Your task to perform on an android device: Go to Yahoo.com Image 0: 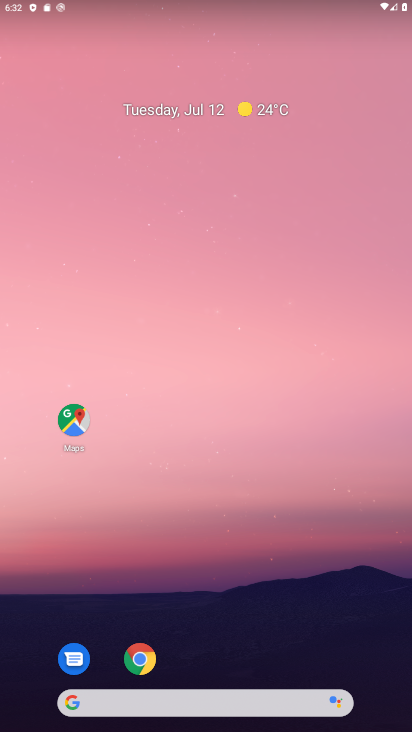
Step 0: drag from (211, 604) to (149, 0)
Your task to perform on an android device: Go to Yahoo.com Image 1: 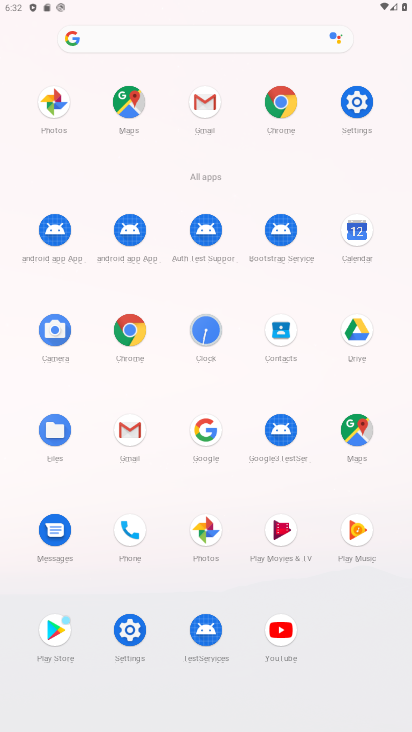
Step 1: click (201, 422)
Your task to perform on an android device: Go to Yahoo.com Image 2: 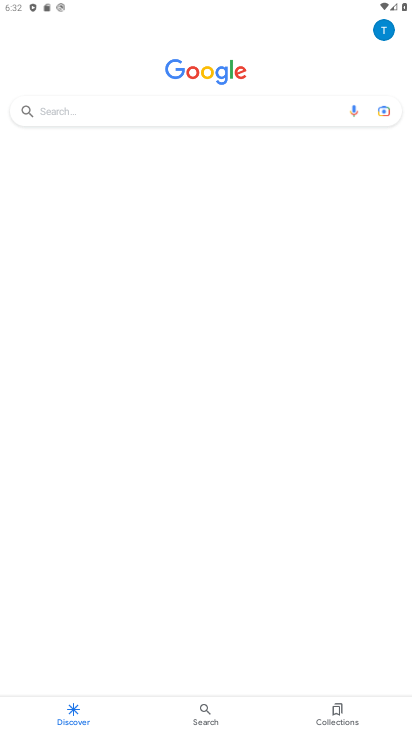
Step 2: click (125, 117)
Your task to perform on an android device: Go to Yahoo.com Image 3: 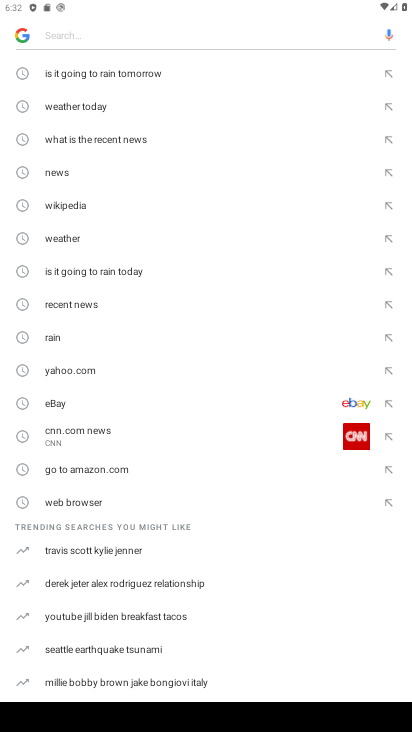
Step 3: click (96, 373)
Your task to perform on an android device: Go to Yahoo.com Image 4: 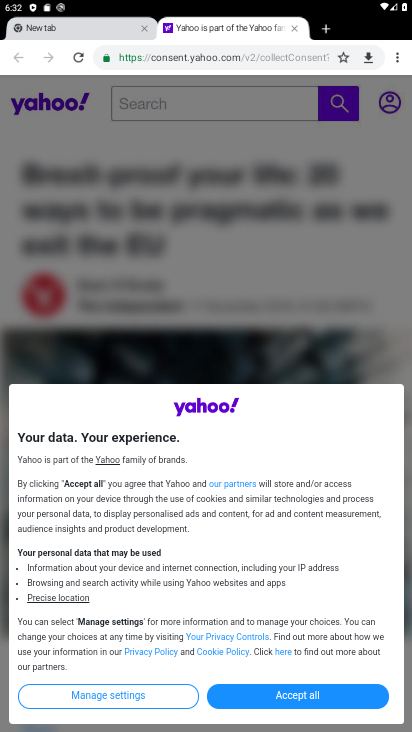
Step 4: task complete